Your task to perform on an android device: Go to sound settings Image 0: 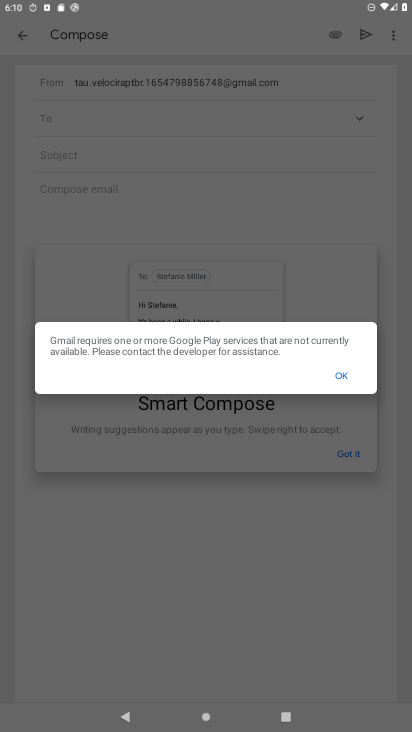
Step 0: press home button
Your task to perform on an android device: Go to sound settings Image 1: 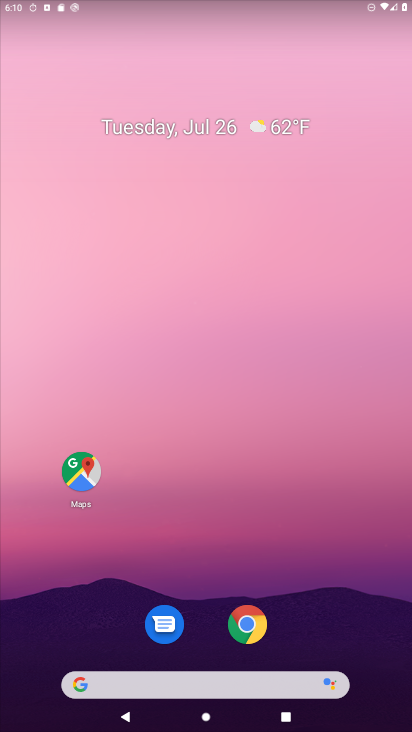
Step 1: drag from (259, 665) to (341, 0)
Your task to perform on an android device: Go to sound settings Image 2: 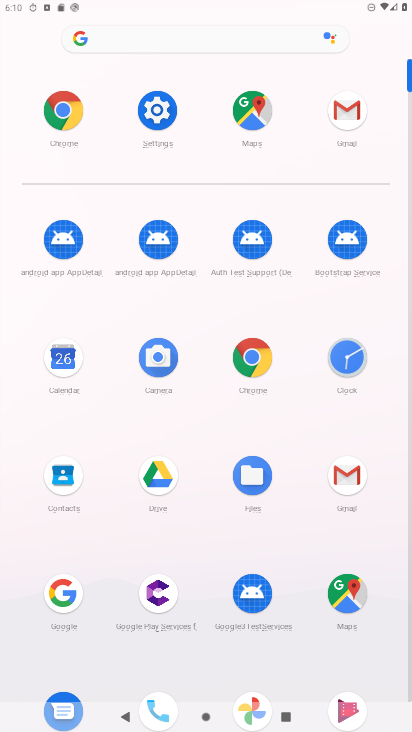
Step 2: click (156, 104)
Your task to perform on an android device: Go to sound settings Image 3: 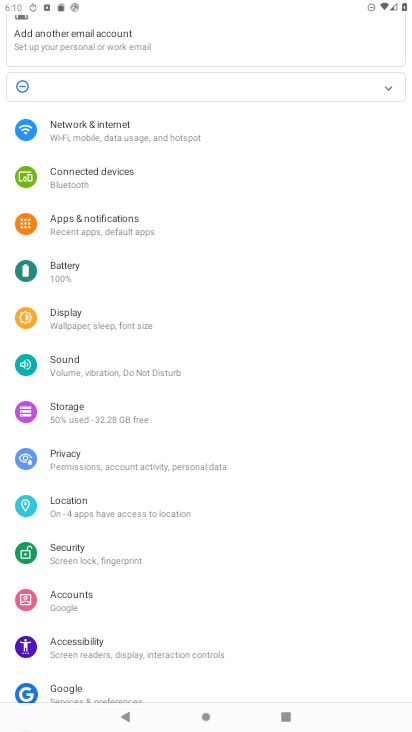
Step 3: click (94, 293)
Your task to perform on an android device: Go to sound settings Image 4: 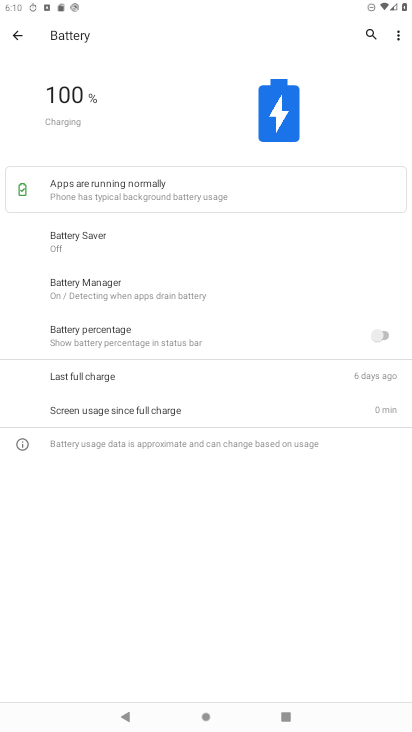
Step 4: press back button
Your task to perform on an android device: Go to sound settings Image 5: 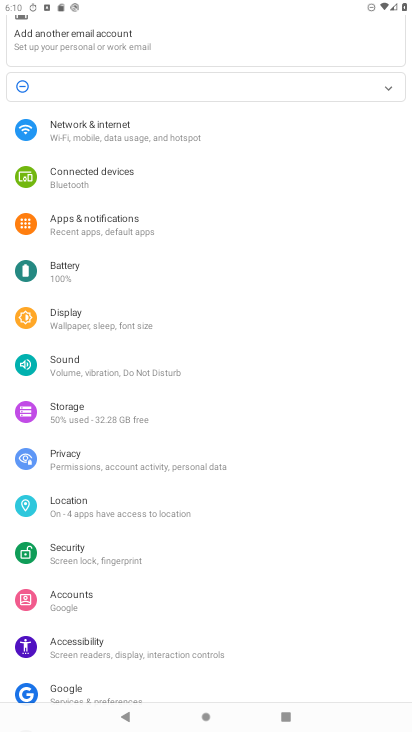
Step 5: click (104, 370)
Your task to perform on an android device: Go to sound settings Image 6: 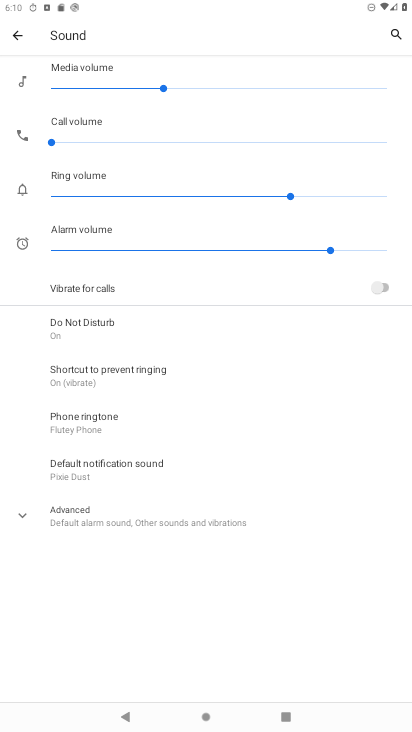
Step 6: task complete